Your task to perform on an android device: Go to calendar. Show me events next week Image 0: 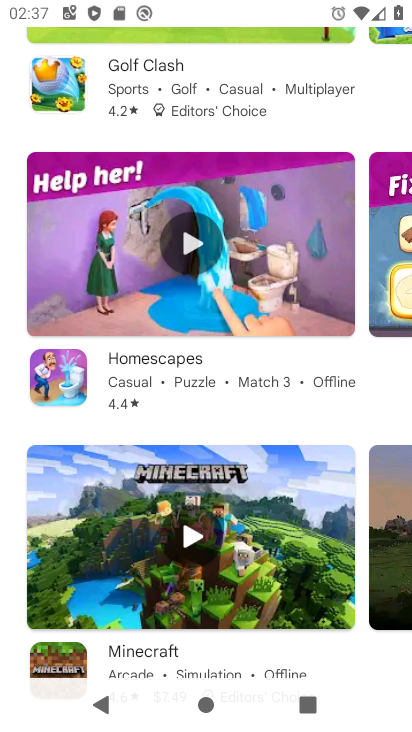
Step 0: press home button
Your task to perform on an android device: Go to calendar. Show me events next week Image 1: 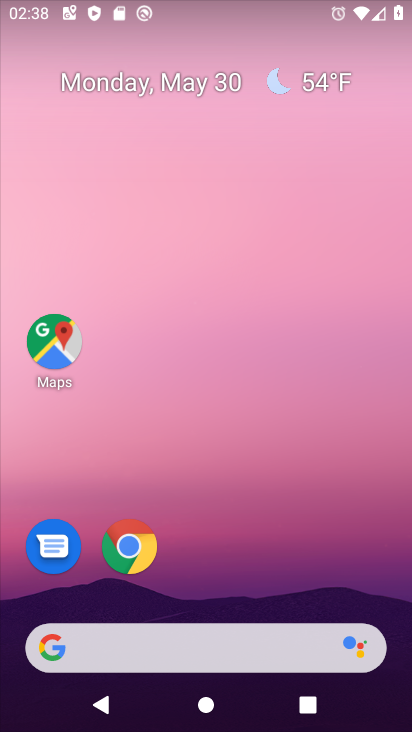
Step 1: drag from (206, 592) to (266, 103)
Your task to perform on an android device: Go to calendar. Show me events next week Image 2: 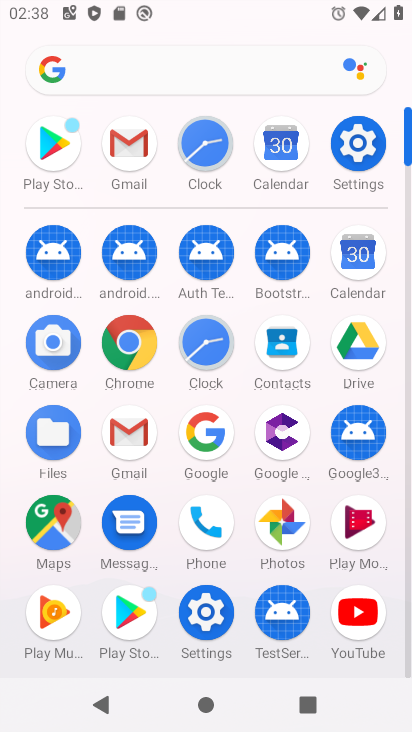
Step 2: click (358, 248)
Your task to perform on an android device: Go to calendar. Show me events next week Image 3: 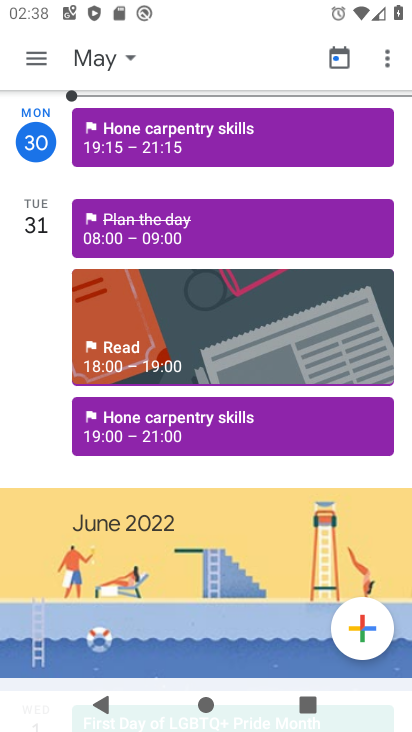
Step 3: click (126, 55)
Your task to perform on an android device: Go to calendar. Show me events next week Image 4: 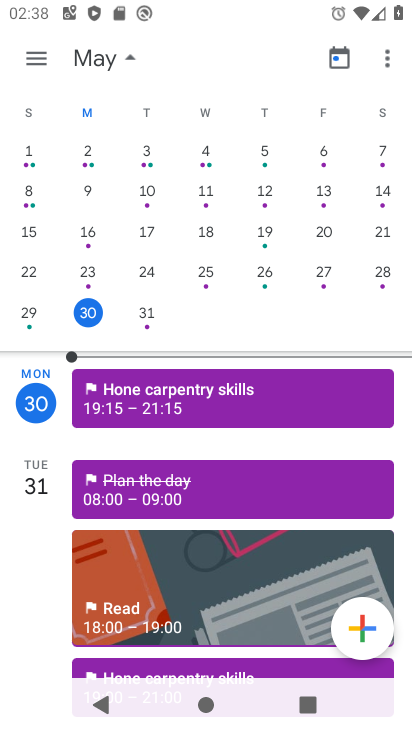
Step 4: drag from (336, 253) to (0, 226)
Your task to perform on an android device: Go to calendar. Show me events next week Image 5: 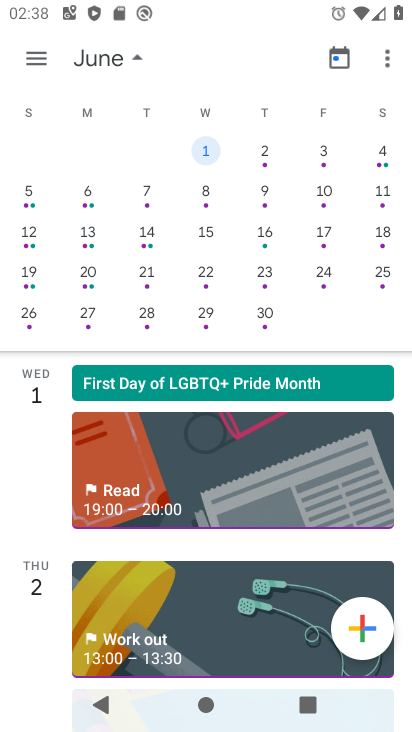
Step 5: click (30, 185)
Your task to perform on an android device: Go to calendar. Show me events next week Image 6: 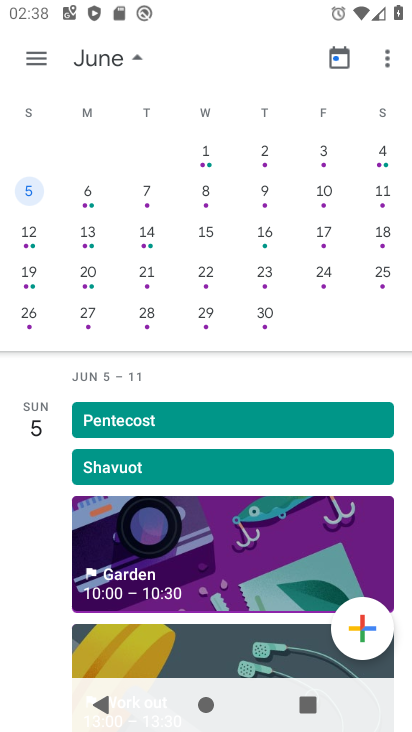
Step 6: click (144, 49)
Your task to perform on an android device: Go to calendar. Show me events next week Image 7: 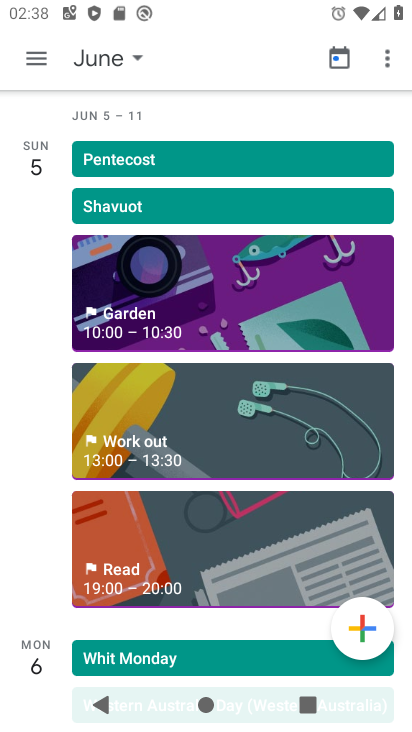
Step 7: task complete